Your task to perform on an android device: turn on bluetooth scan Image 0: 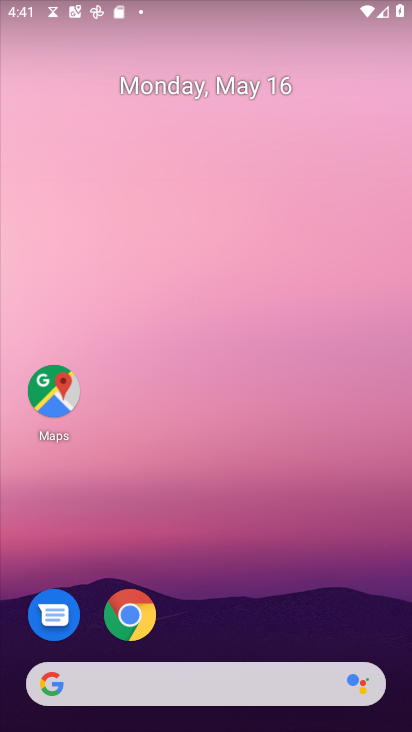
Step 0: drag from (230, 626) to (244, 124)
Your task to perform on an android device: turn on bluetooth scan Image 1: 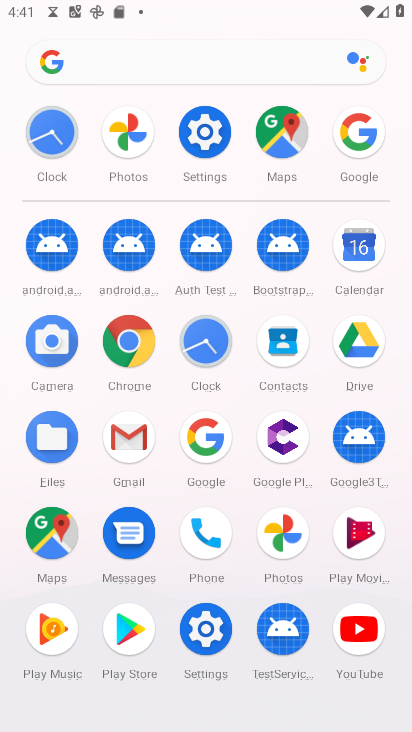
Step 1: click (203, 140)
Your task to perform on an android device: turn on bluetooth scan Image 2: 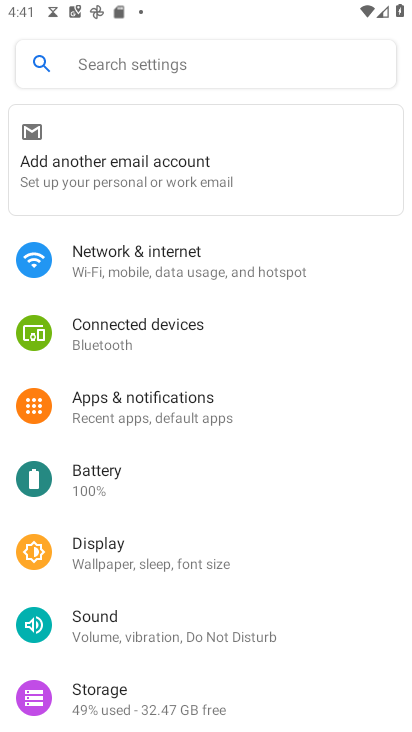
Step 2: drag from (135, 647) to (180, 308)
Your task to perform on an android device: turn on bluetooth scan Image 3: 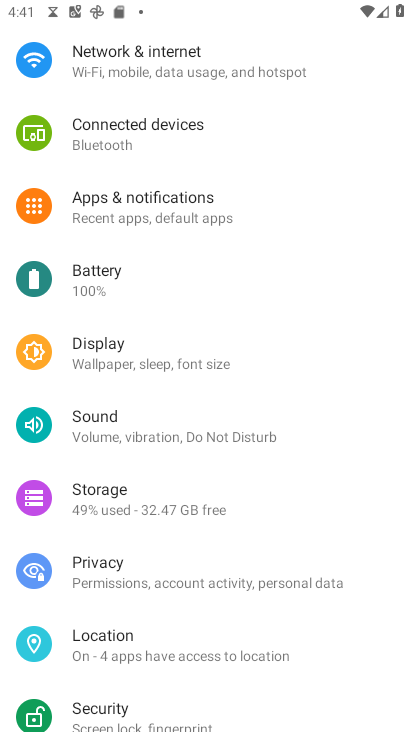
Step 3: click (115, 656)
Your task to perform on an android device: turn on bluetooth scan Image 4: 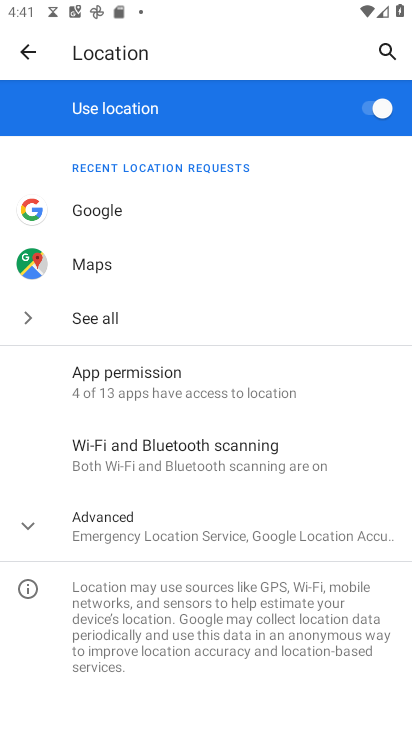
Step 4: click (108, 522)
Your task to perform on an android device: turn on bluetooth scan Image 5: 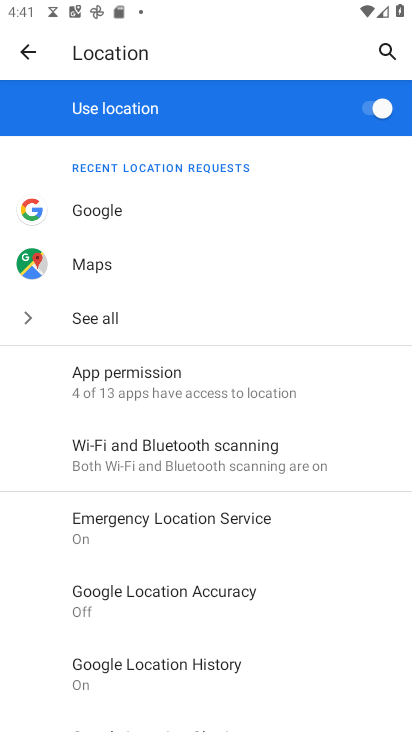
Step 5: drag from (185, 572) to (223, 419)
Your task to perform on an android device: turn on bluetooth scan Image 6: 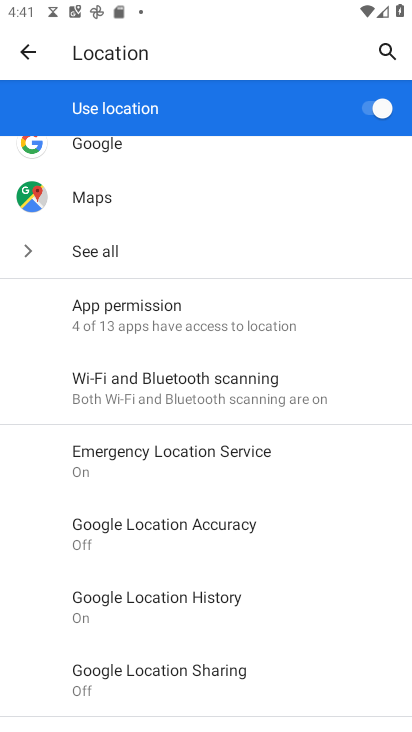
Step 6: drag from (238, 652) to (266, 353)
Your task to perform on an android device: turn on bluetooth scan Image 7: 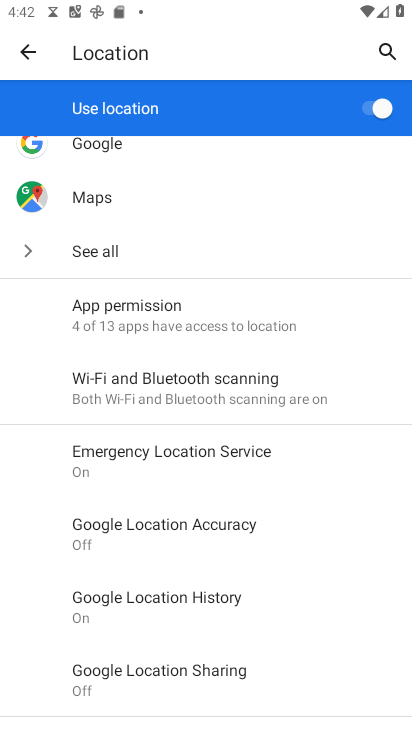
Step 7: click (150, 378)
Your task to perform on an android device: turn on bluetooth scan Image 8: 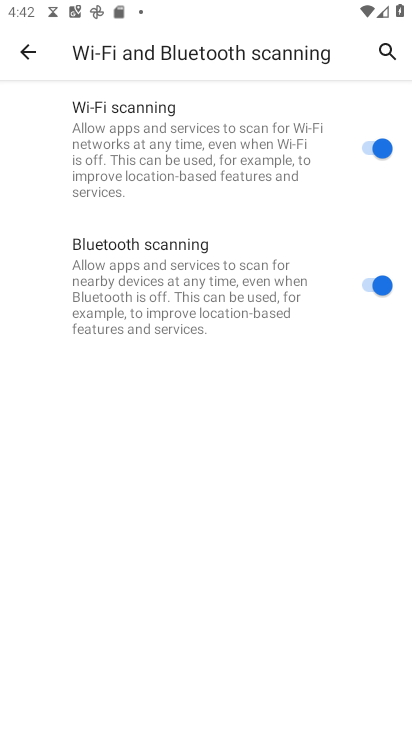
Step 8: task complete